Your task to perform on an android device: change timer sound Image 0: 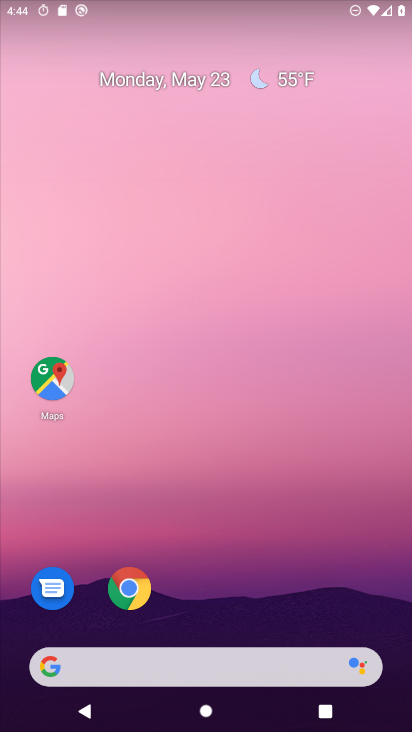
Step 0: drag from (253, 589) to (239, 103)
Your task to perform on an android device: change timer sound Image 1: 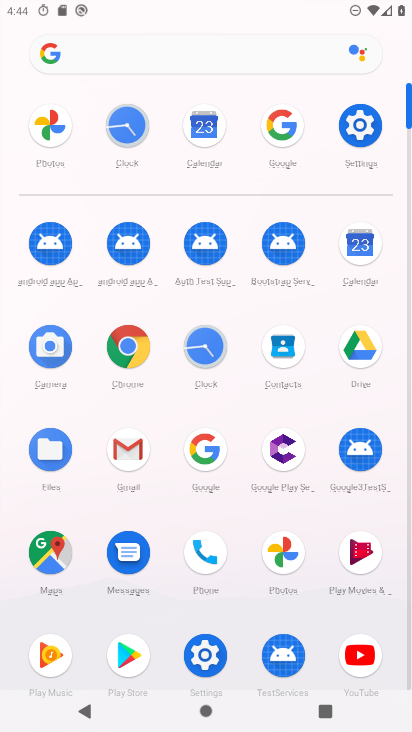
Step 1: click (210, 353)
Your task to perform on an android device: change timer sound Image 2: 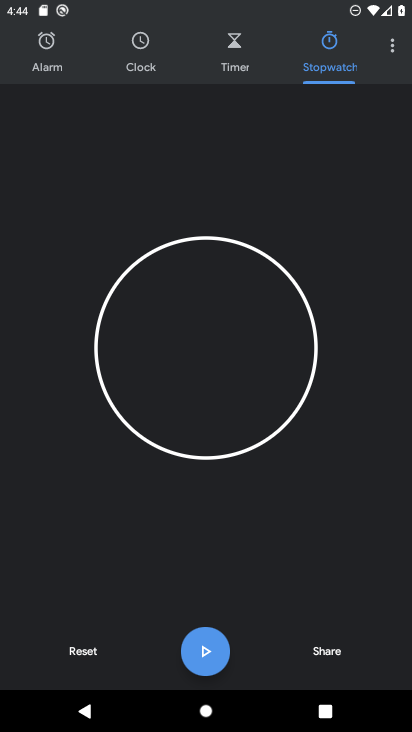
Step 2: click (384, 41)
Your task to perform on an android device: change timer sound Image 3: 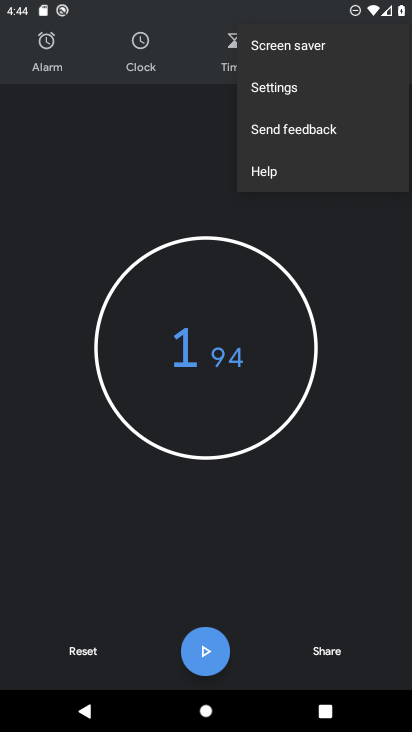
Step 3: click (269, 89)
Your task to perform on an android device: change timer sound Image 4: 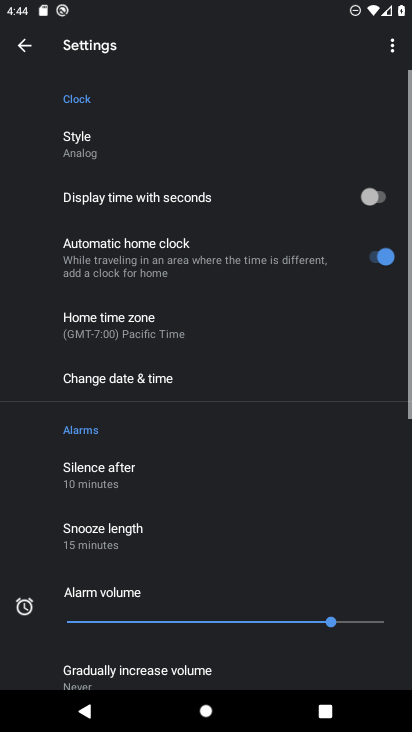
Step 4: drag from (152, 616) to (174, 132)
Your task to perform on an android device: change timer sound Image 5: 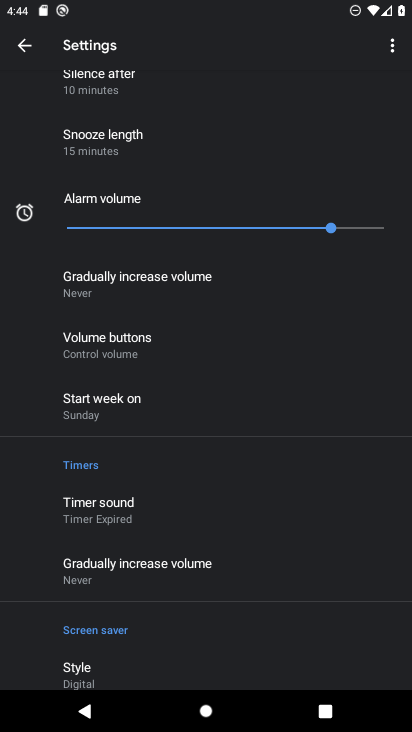
Step 5: drag from (148, 621) to (167, 156)
Your task to perform on an android device: change timer sound Image 6: 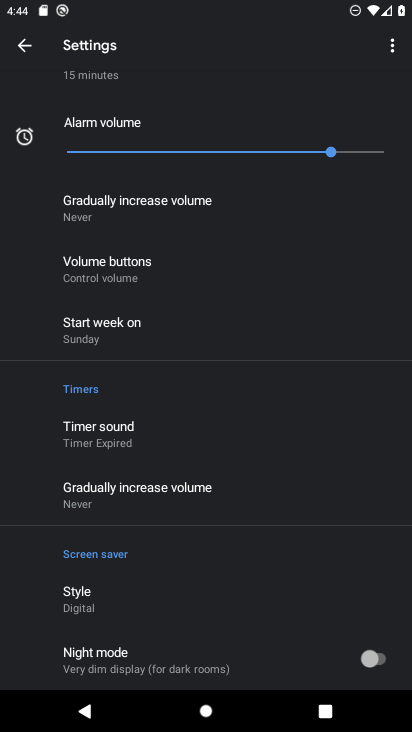
Step 6: click (122, 429)
Your task to perform on an android device: change timer sound Image 7: 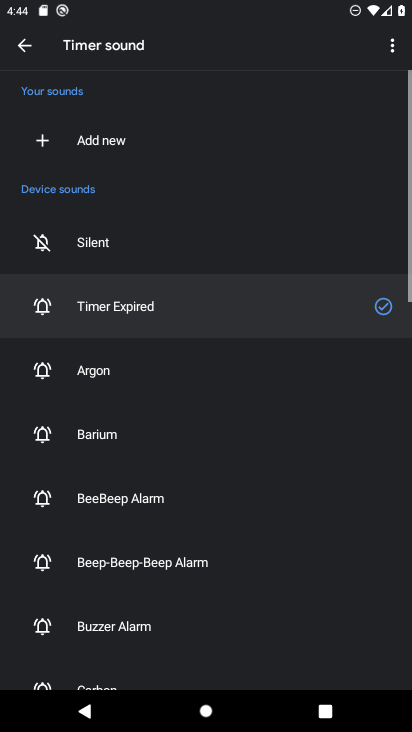
Step 7: click (109, 377)
Your task to perform on an android device: change timer sound Image 8: 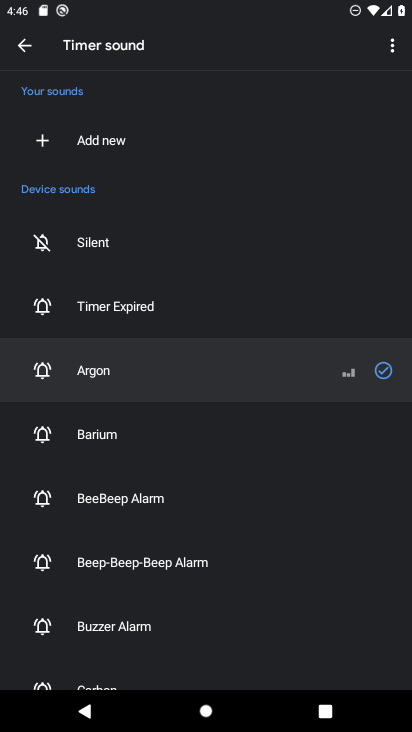
Step 8: task complete